Your task to perform on an android device: What's on my calendar today? Image 0: 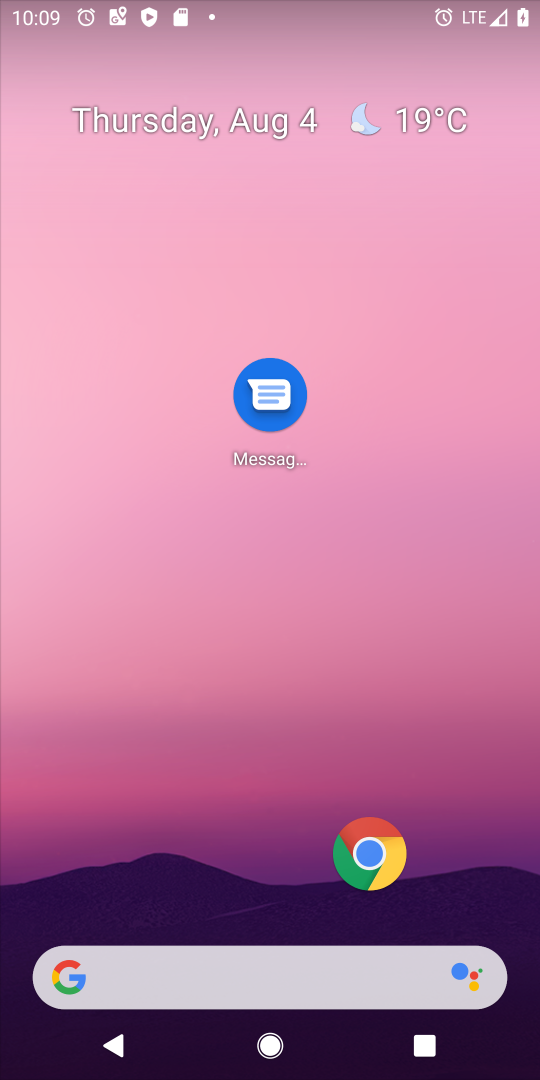
Step 0: drag from (203, 719) to (203, 228)
Your task to perform on an android device: What's on my calendar today? Image 1: 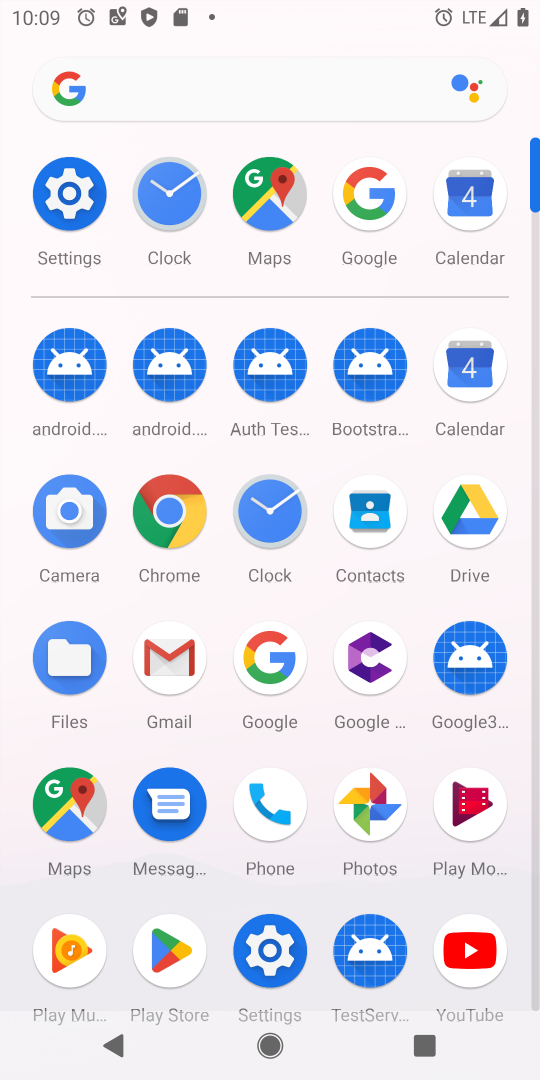
Step 1: click (466, 359)
Your task to perform on an android device: What's on my calendar today? Image 2: 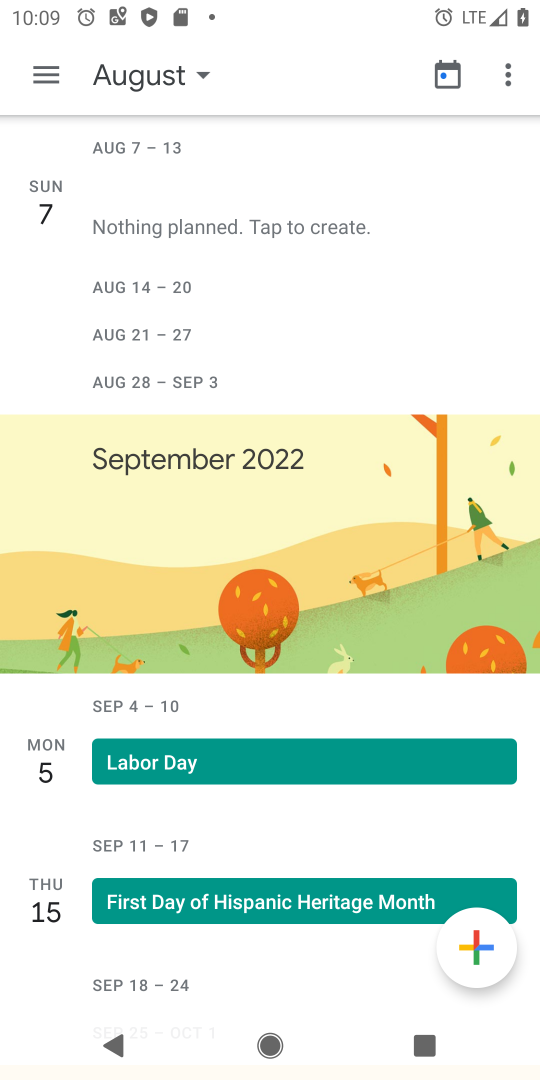
Step 2: click (145, 88)
Your task to perform on an android device: What's on my calendar today? Image 3: 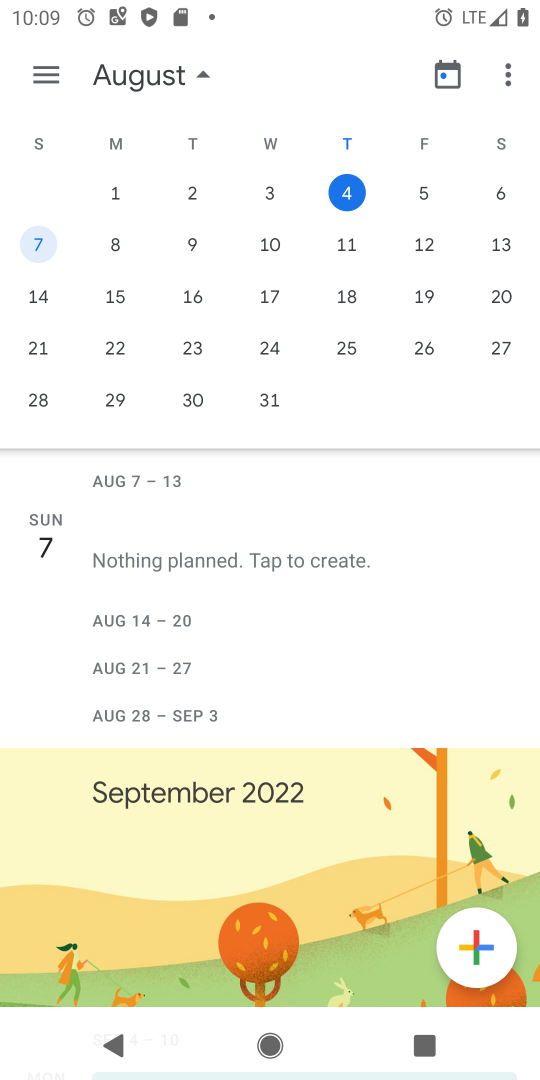
Step 3: click (351, 196)
Your task to perform on an android device: What's on my calendar today? Image 4: 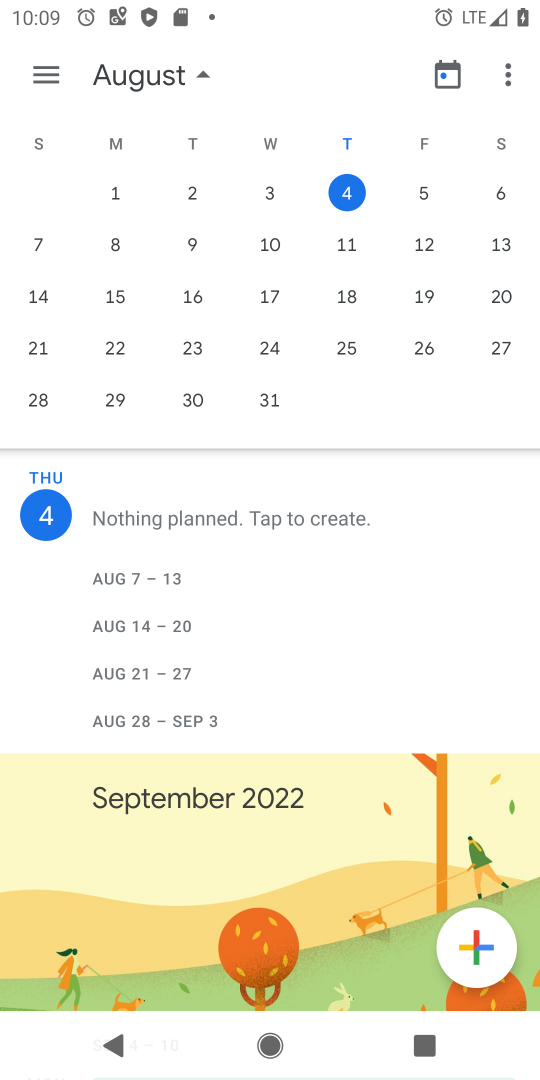
Step 4: task complete